Your task to perform on an android device: Search for logitech g910 on costco.com, select the first entry, add it to the cart, then select checkout. Image 0: 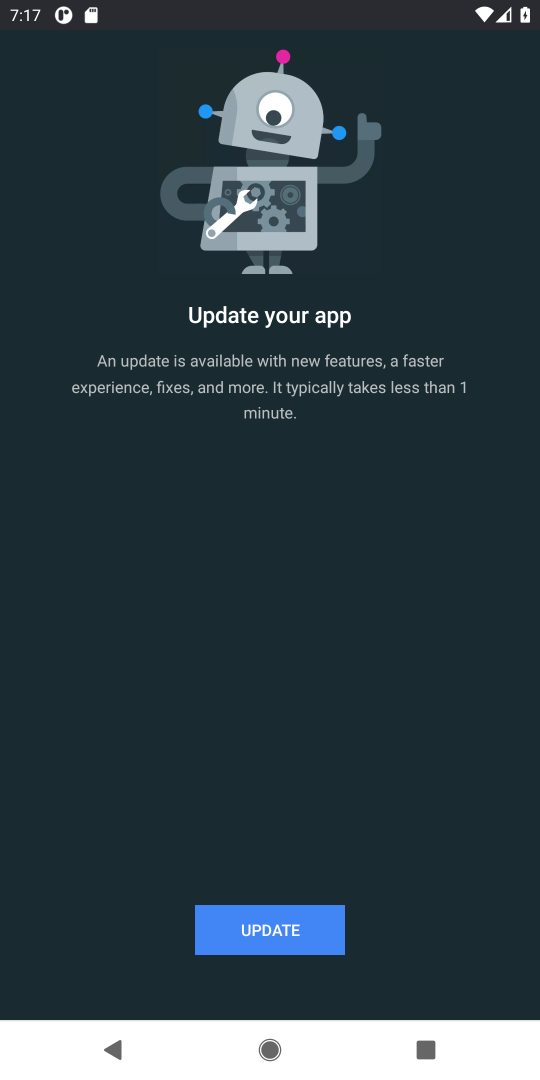
Step 0: press home button
Your task to perform on an android device: Search for logitech g910 on costco.com, select the first entry, add it to the cart, then select checkout. Image 1: 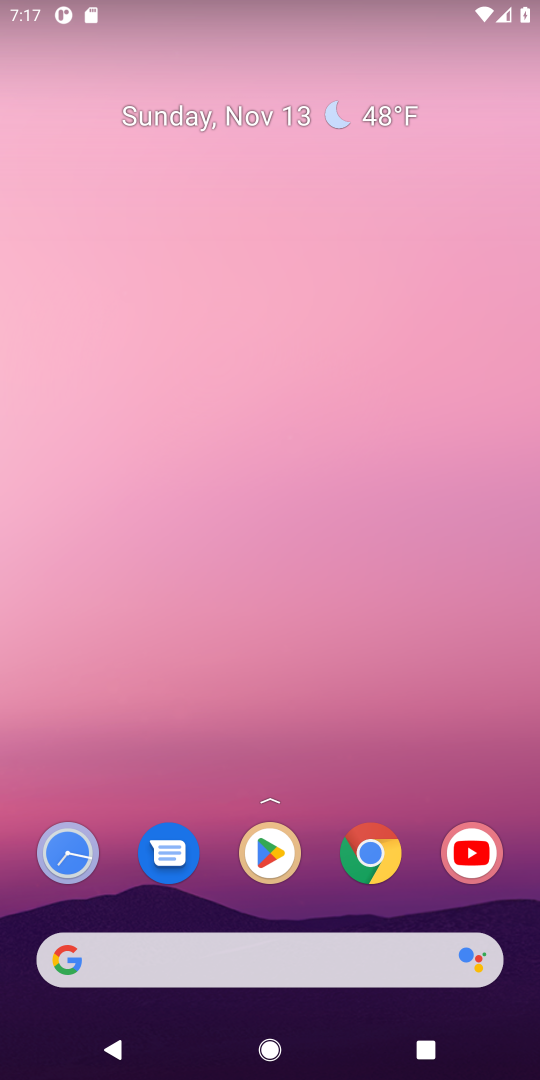
Step 1: click (90, 956)
Your task to perform on an android device: Search for logitech g910 on costco.com, select the first entry, add it to the cart, then select checkout. Image 2: 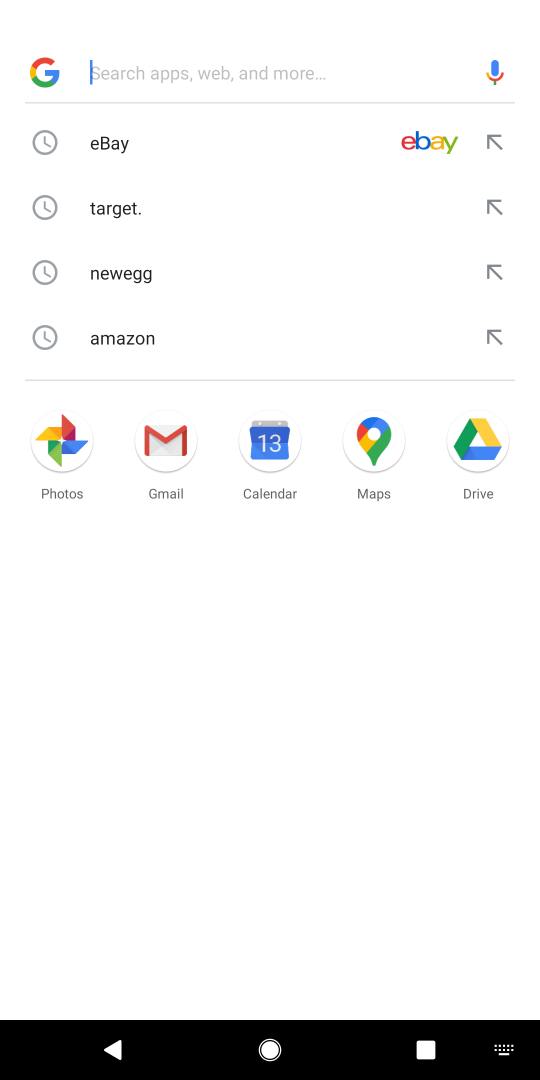
Step 2: press enter
Your task to perform on an android device: Search for logitech g910 on costco.com, select the first entry, add it to the cart, then select checkout. Image 3: 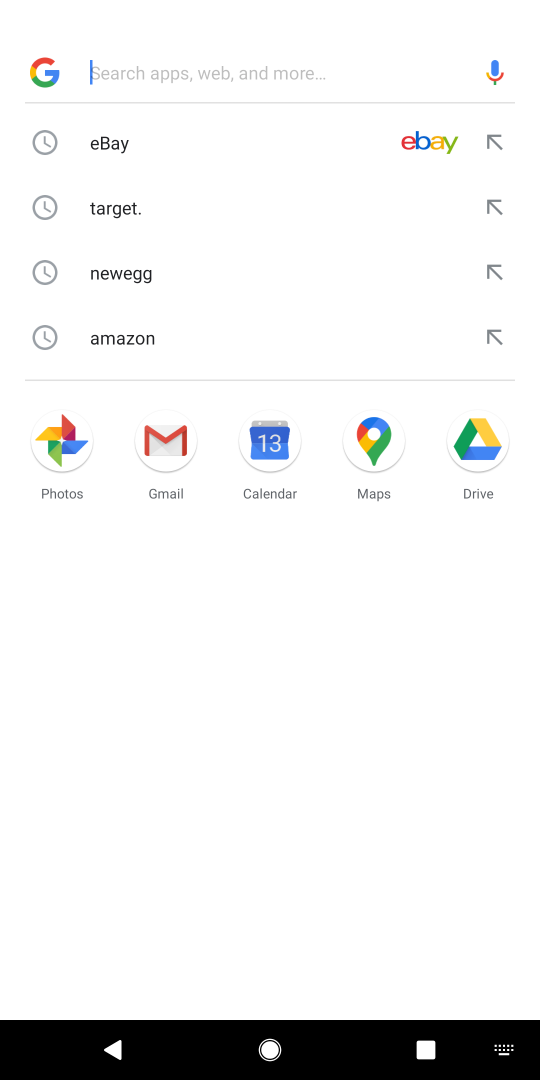
Step 3: type "costco.com"
Your task to perform on an android device: Search for logitech g910 on costco.com, select the first entry, add it to the cart, then select checkout. Image 4: 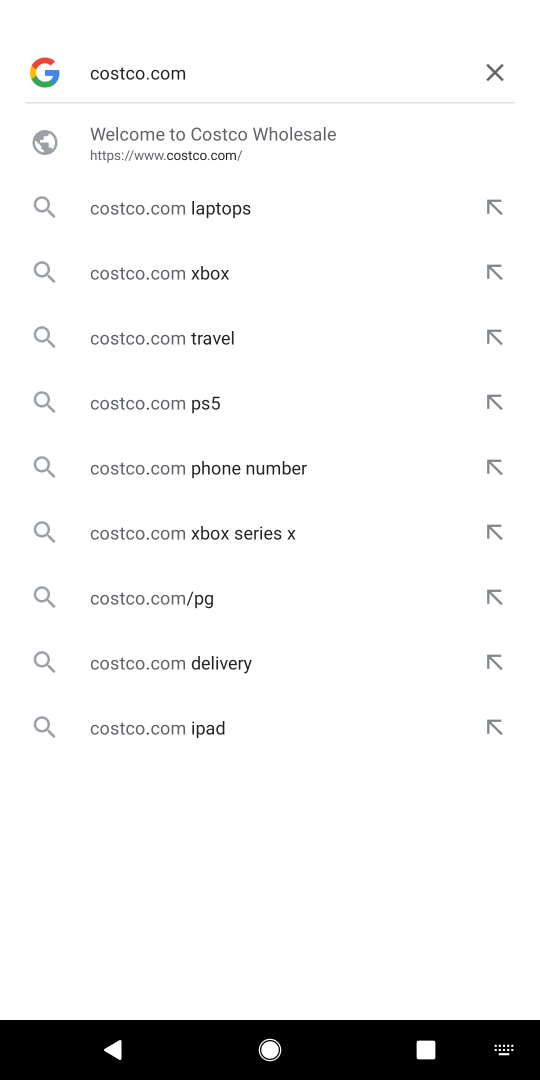
Step 4: press enter
Your task to perform on an android device: Search for logitech g910 on costco.com, select the first entry, add it to the cart, then select checkout. Image 5: 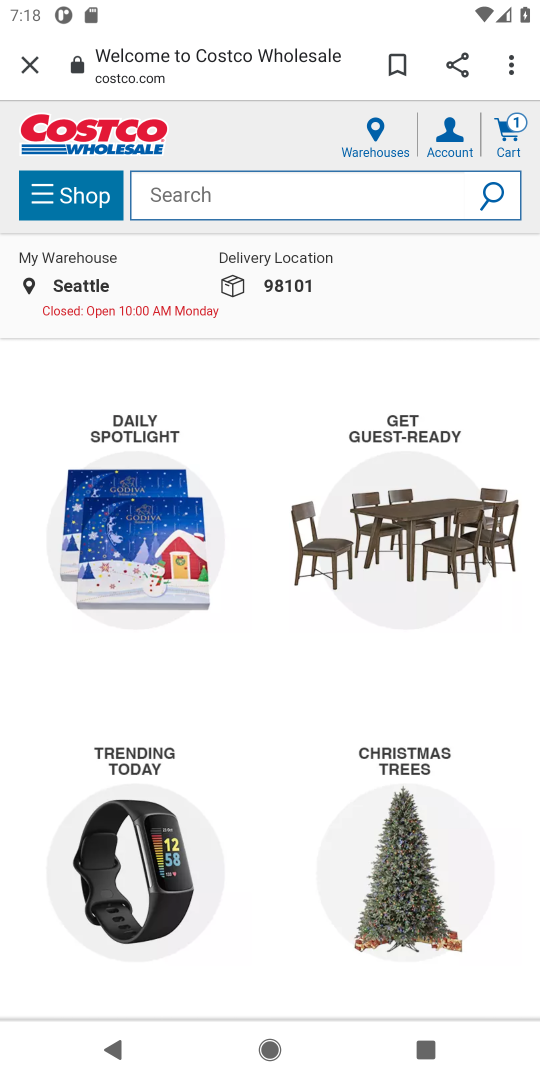
Step 5: click (193, 188)
Your task to perform on an android device: Search for logitech g910 on costco.com, select the first entry, add it to the cart, then select checkout. Image 6: 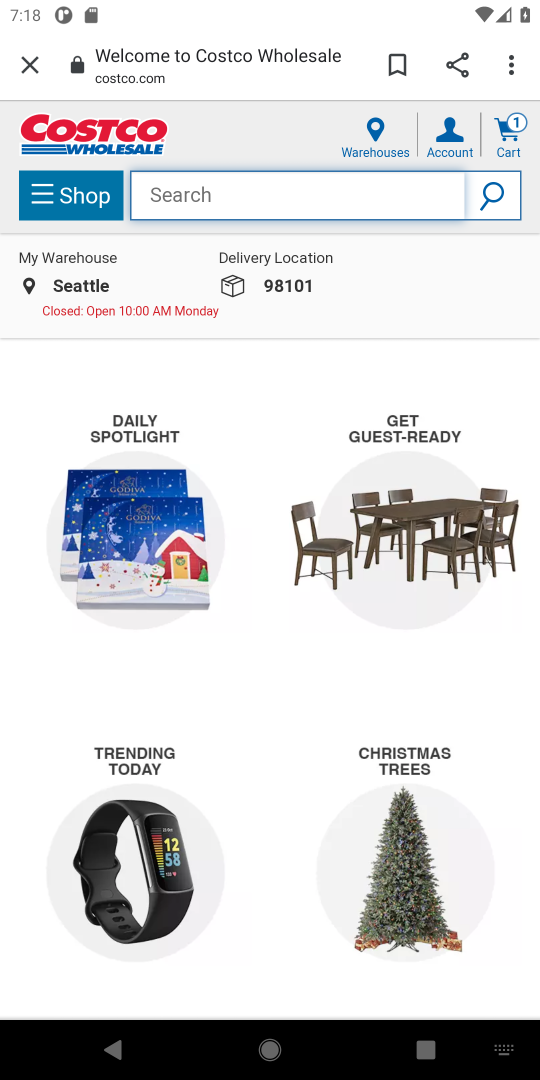
Step 6: type "logitech g910"
Your task to perform on an android device: Search for logitech g910 on costco.com, select the first entry, add it to the cart, then select checkout. Image 7: 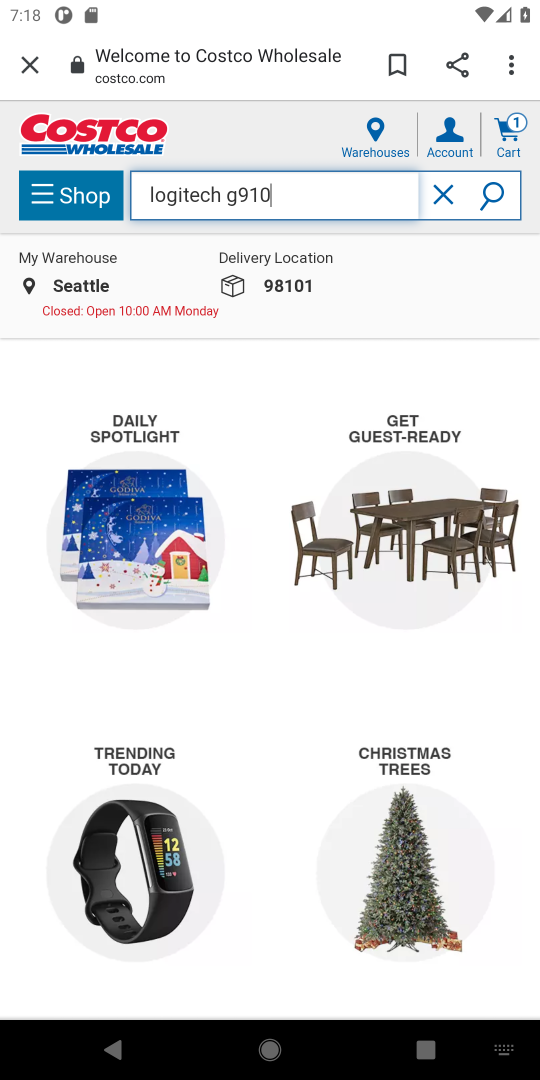
Step 7: press enter
Your task to perform on an android device: Search for logitech g910 on costco.com, select the first entry, add it to the cart, then select checkout. Image 8: 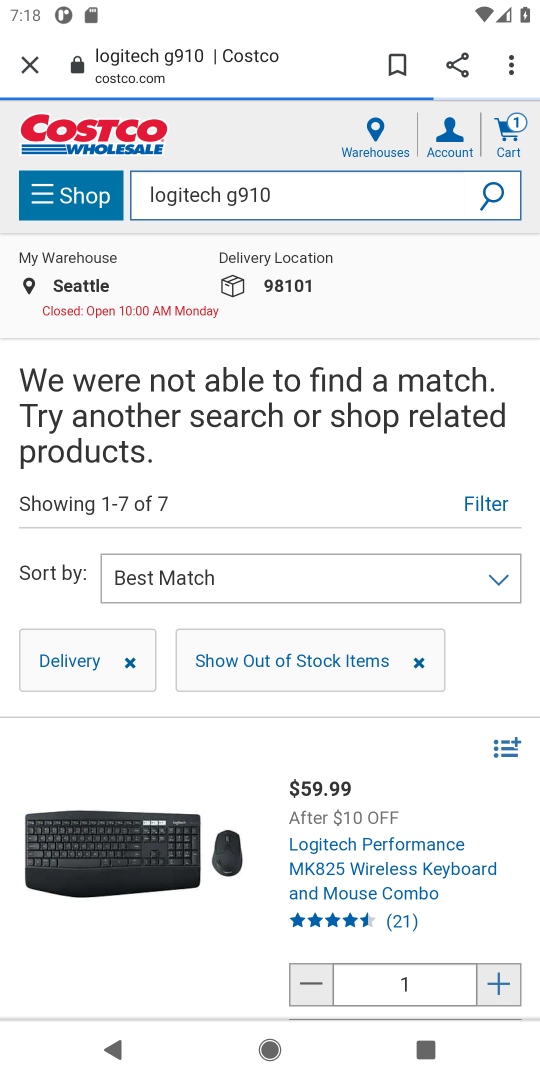
Step 8: task complete